Your task to perform on an android device: Search for "apple airpods pro" on walmart, select the first entry, and add it to the cart. Image 0: 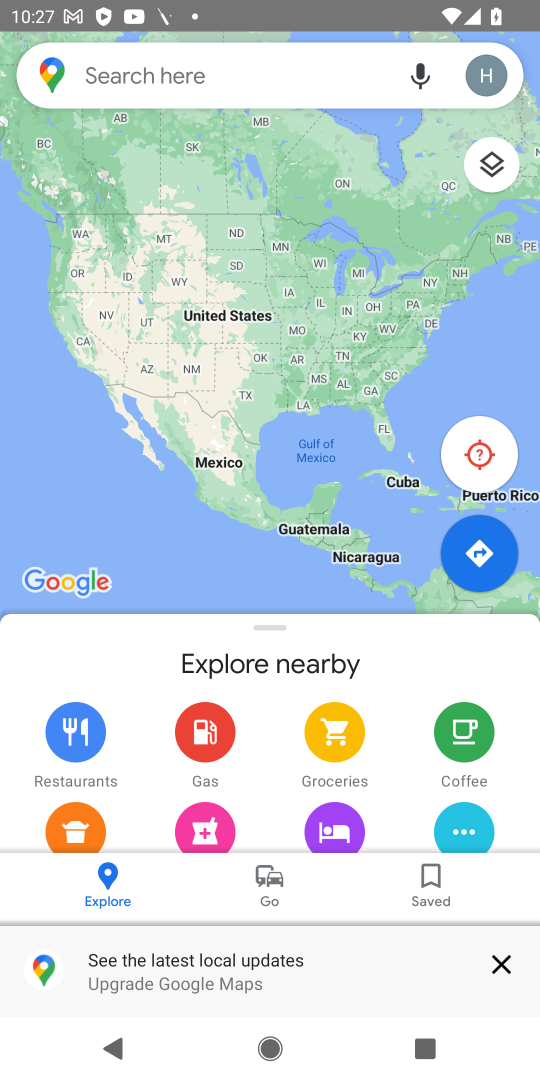
Step 0: press home button
Your task to perform on an android device: Search for "apple airpods pro" on walmart, select the first entry, and add it to the cart. Image 1: 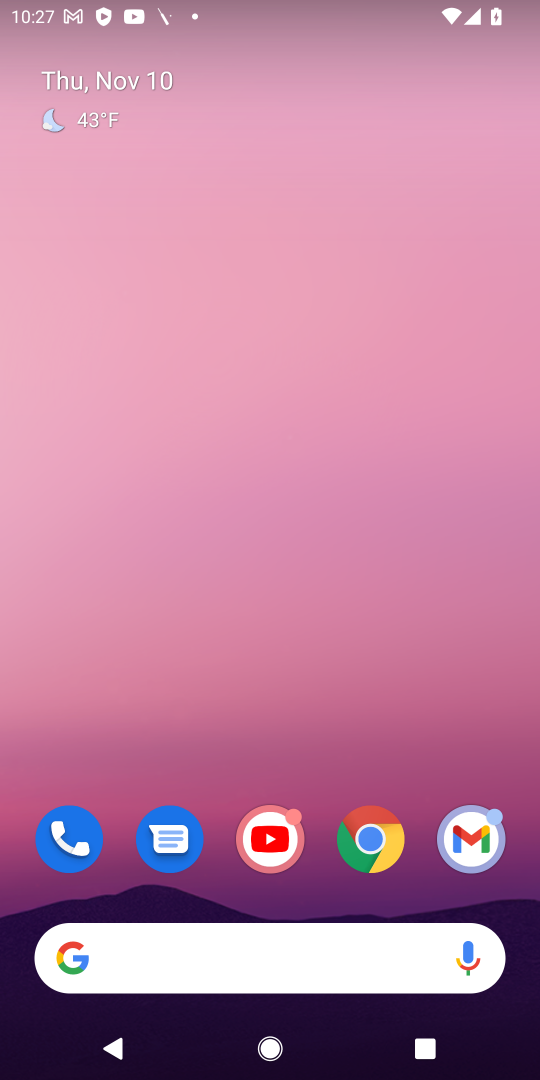
Step 1: click (382, 830)
Your task to perform on an android device: Search for "apple airpods pro" on walmart, select the first entry, and add it to the cart. Image 2: 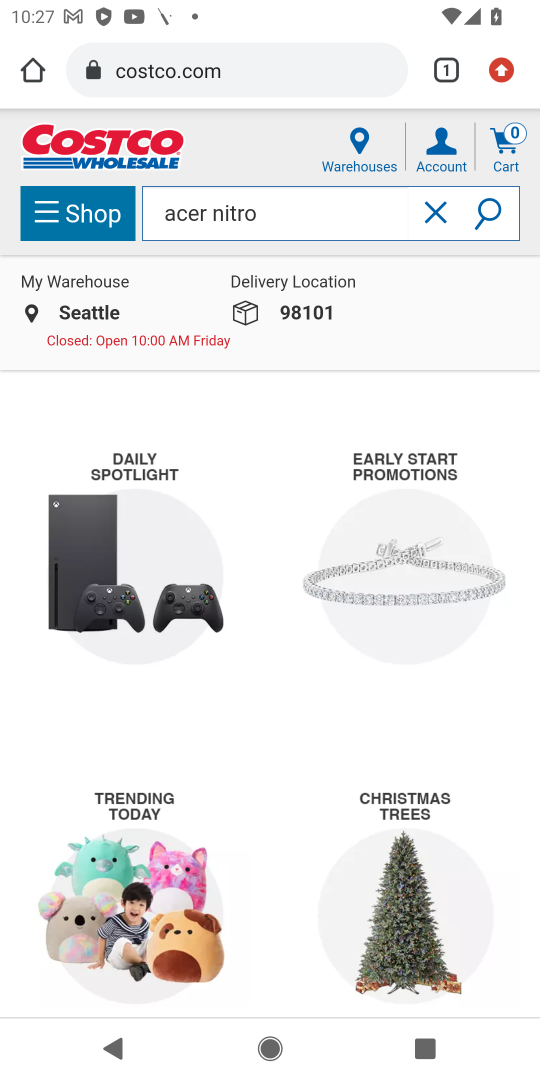
Step 2: click (251, 63)
Your task to perform on an android device: Search for "apple airpods pro" on walmart, select the first entry, and add it to the cart. Image 3: 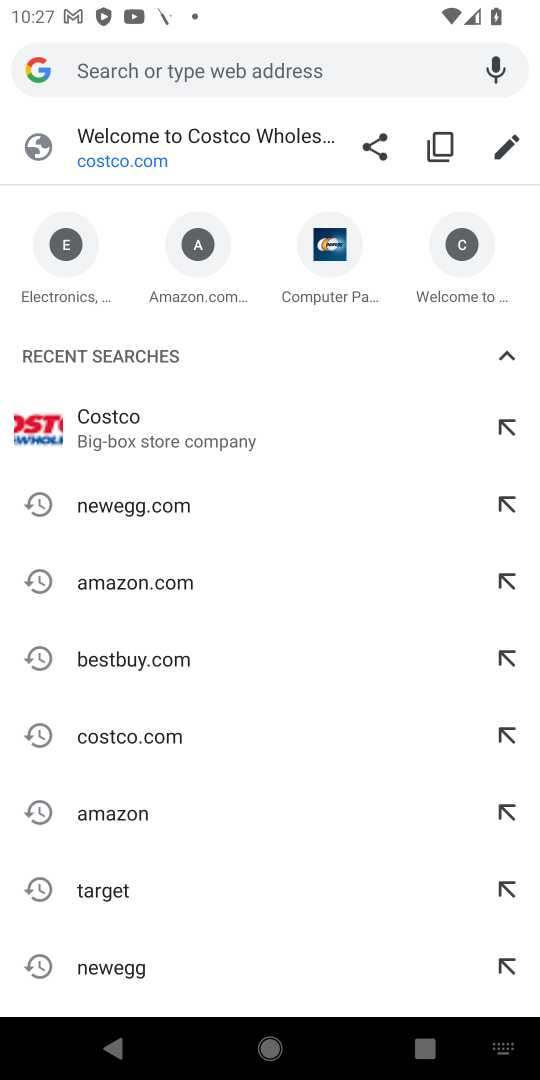
Step 3: type "acer nitro"
Your task to perform on an android device: Search for "apple airpods pro" on walmart, select the first entry, and add it to the cart. Image 4: 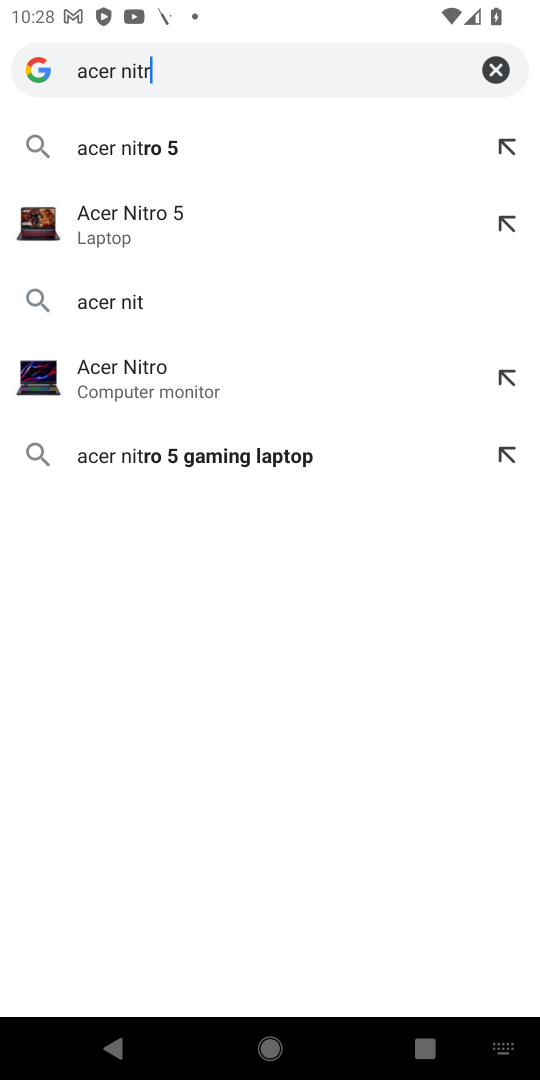
Step 4: press enter
Your task to perform on an android device: Search for "apple airpods pro" on walmart, select the first entry, and add it to the cart. Image 5: 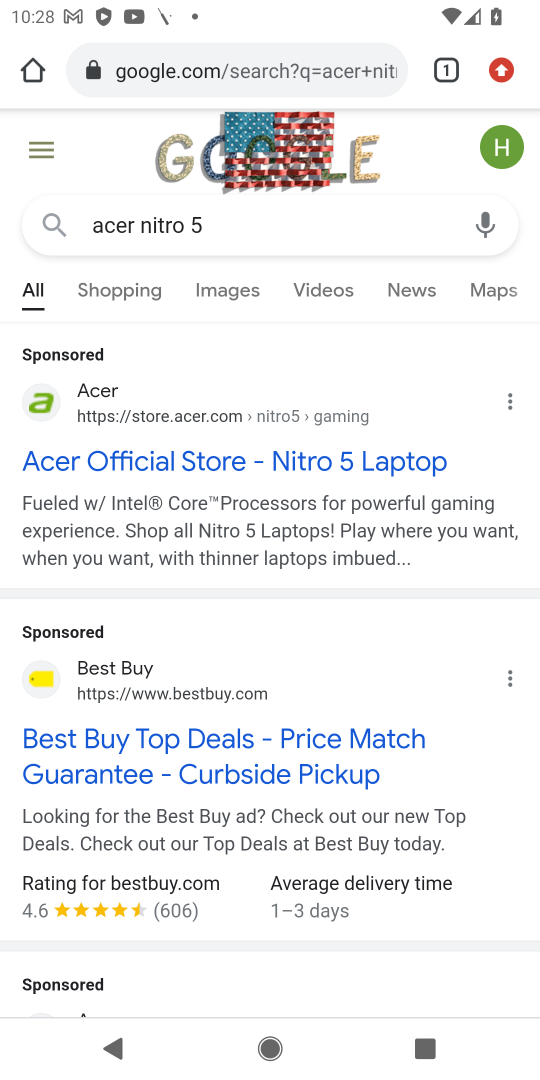
Step 5: click (34, 68)
Your task to perform on an android device: Search for "apple airpods pro" on walmart, select the first entry, and add it to the cart. Image 6: 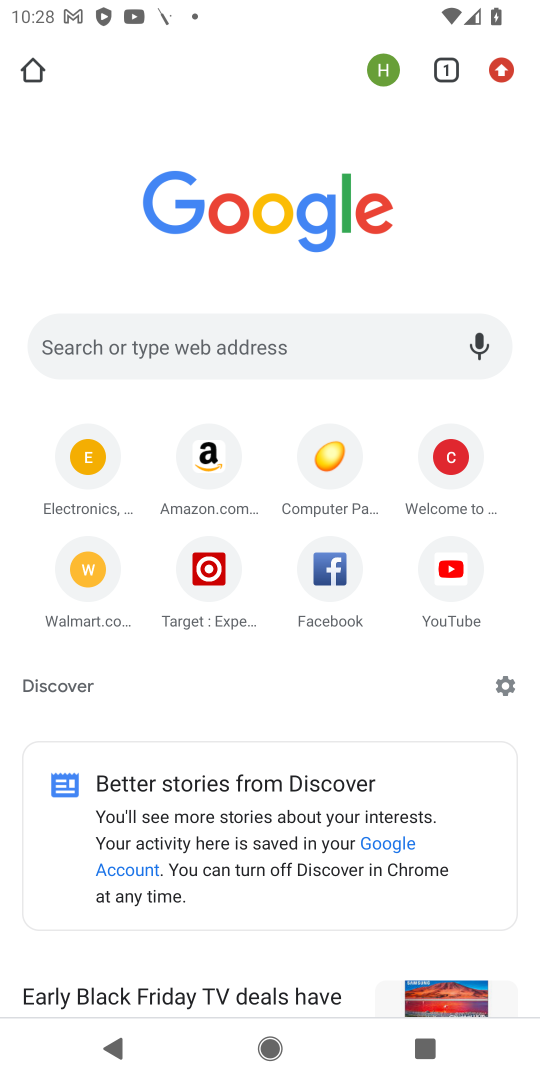
Step 6: click (77, 562)
Your task to perform on an android device: Search for "apple airpods pro" on walmart, select the first entry, and add it to the cart. Image 7: 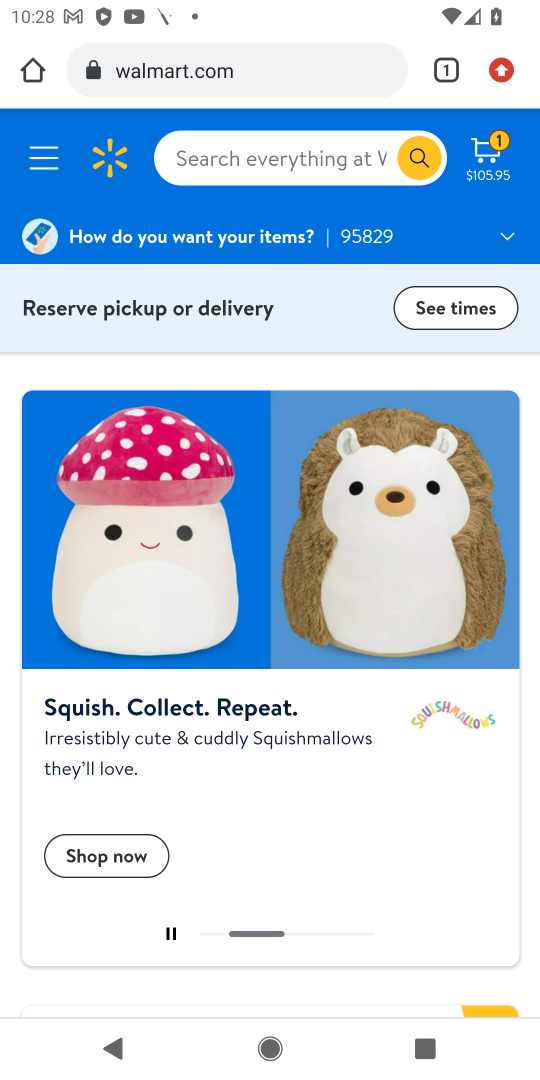
Step 7: click (260, 154)
Your task to perform on an android device: Search for "apple airpods pro" on walmart, select the first entry, and add it to the cart. Image 8: 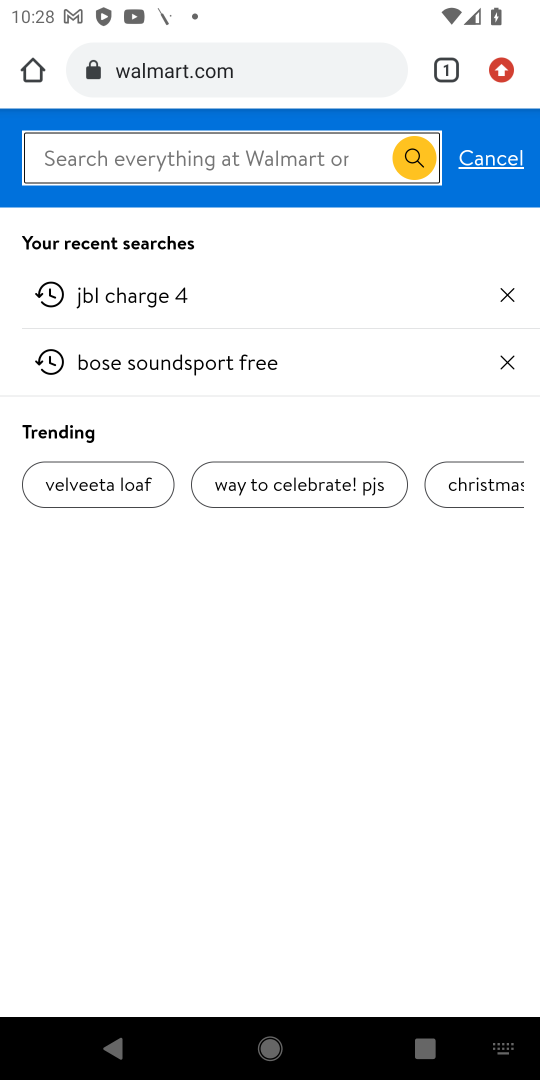
Step 8: type "apple airpods pro"
Your task to perform on an android device: Search for "apple airpods pro" on walmart, select the first entry, and add it to the cart. Image 9: 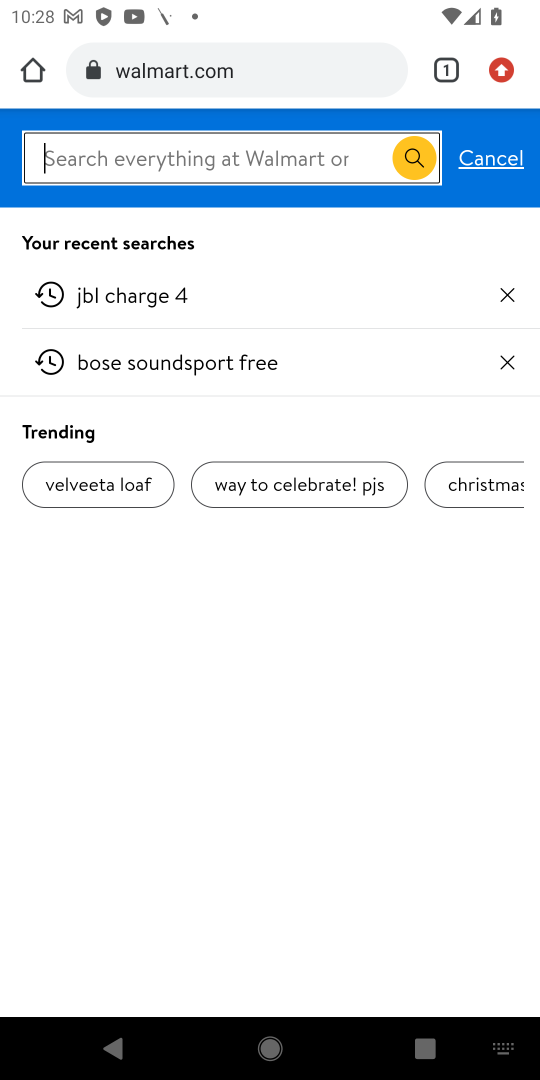
Step 9: press enter
Your task to perform on an android device: Search for "apple airpods pro" on walmart, select the first entry, and add it to the cart. Image 10: 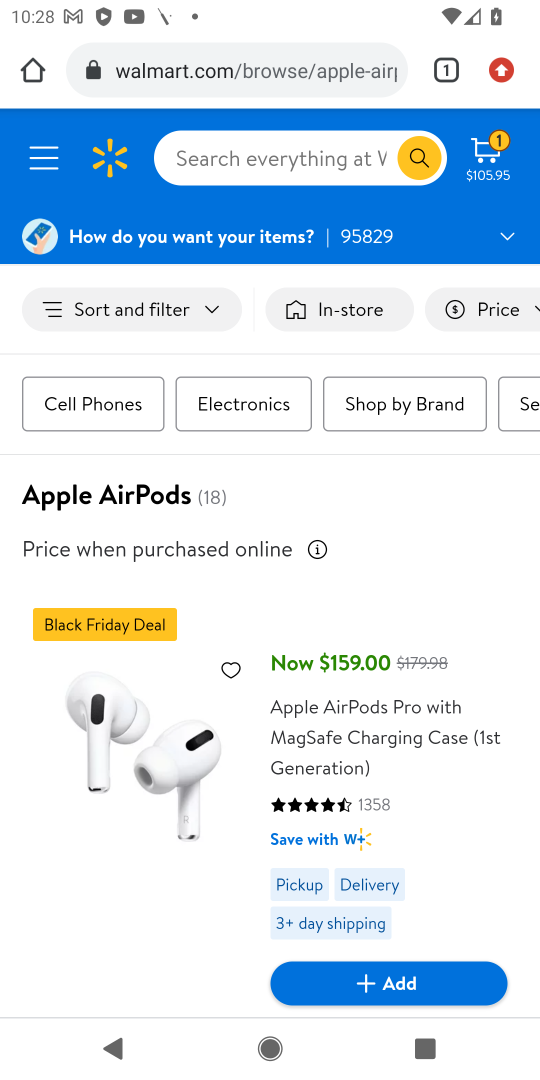
Step 10: click (104, 765)
Your task to perform on an android device: Search for "apple airpods pro" on walmart, select the first entry, and add it to the cart. Image 11: 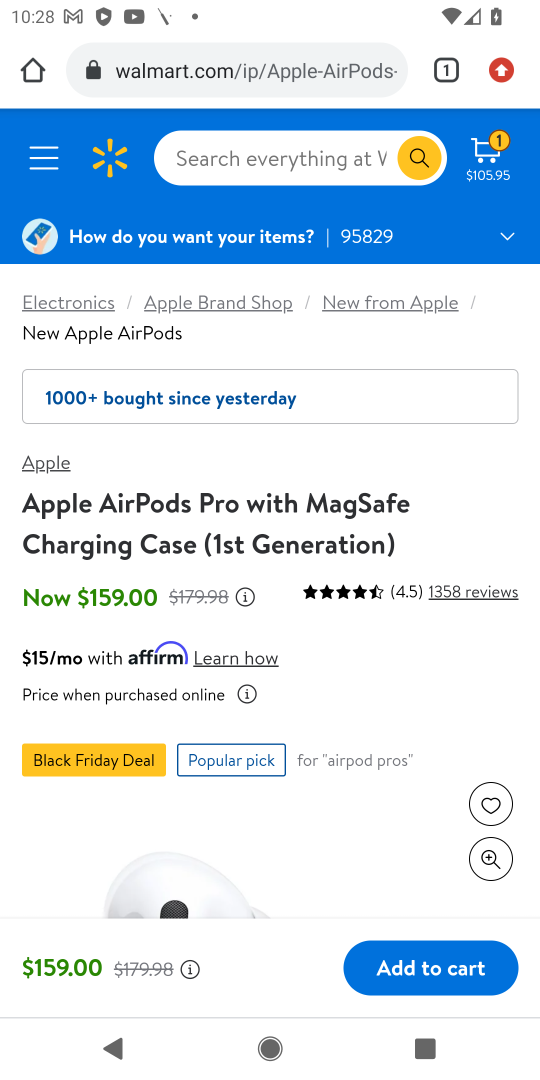
Step 11: click (421, 957)
Your task to perform on an android device: Search for "apple airpods pro" on walmart, select the first entry, and add it to the cart. Image 12: 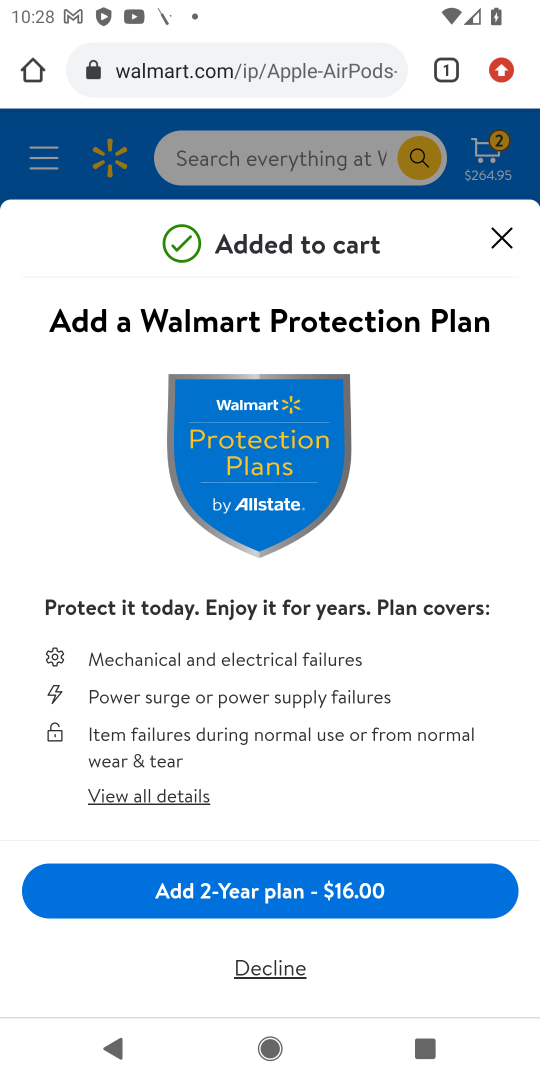
Step 12: task complete